Your task to perform on an android device: Search for Italian restaurants on Maps Image 0: 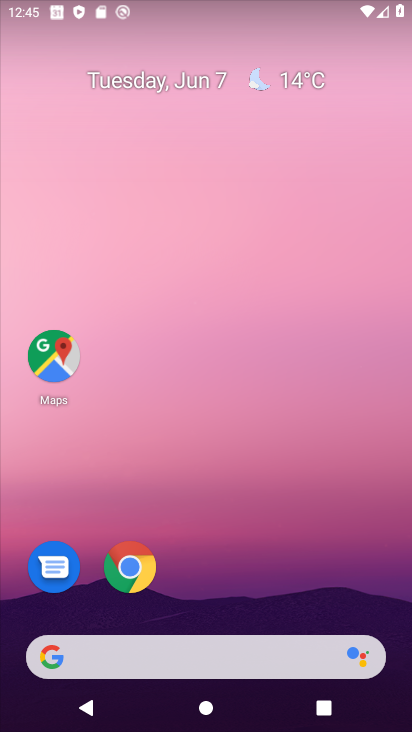
Step 0: click (53, 357)
Your task to perform on an android device: Search for Italian restaurants on Maps Image 1: 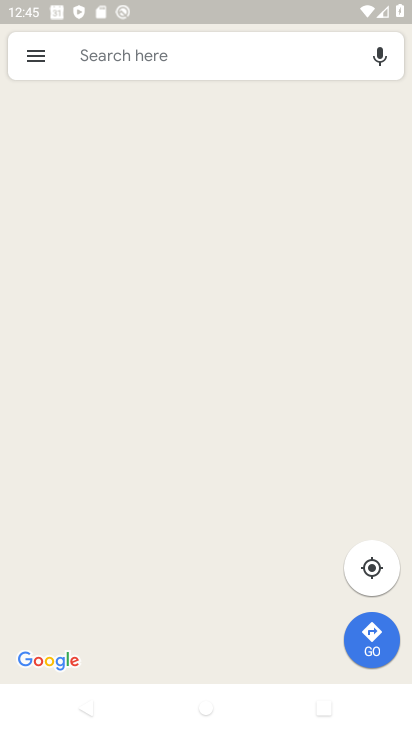
Step 1: click (128, 52)
Your task to perform on an android device: Search for Italian restaurants on Maps Image 2: 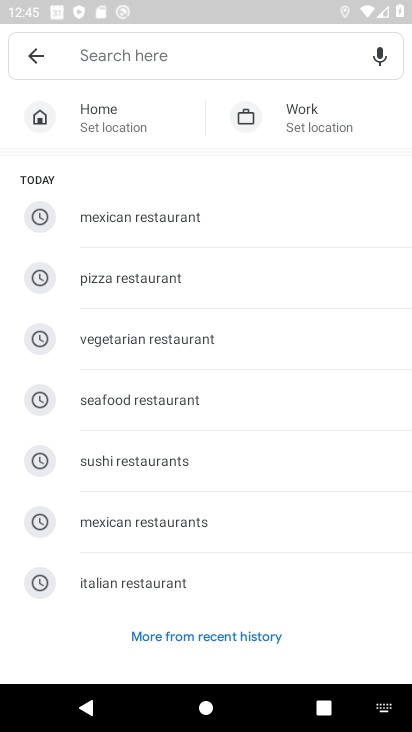
Step 2: type "italian restaurants"
Your task to perform on an android device: Search for Italian restaurants on Maps Image 3: 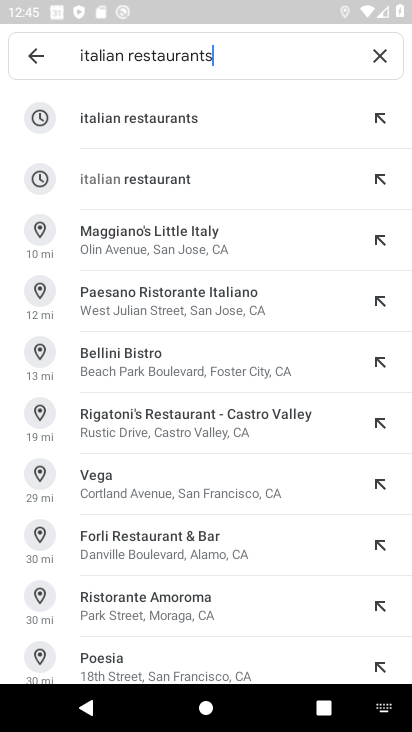
Step 3: click (206, 124)
Your task to perform on an android device: Search for Italian restaurants on Maps Image 4: 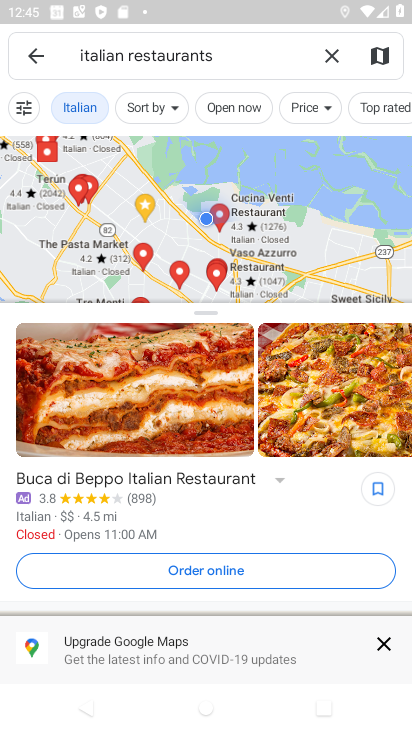
Step 4: task complete